Your task to perform on an android device: turn off location Image 0: 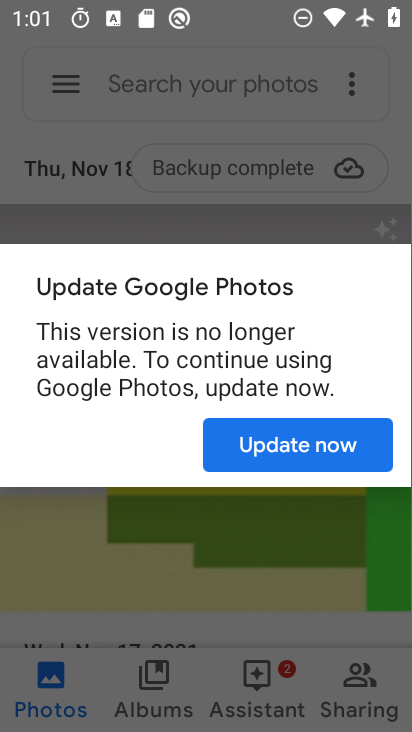
Step 0: press home button
Your task to perform on an android device: turn off location Image 1: 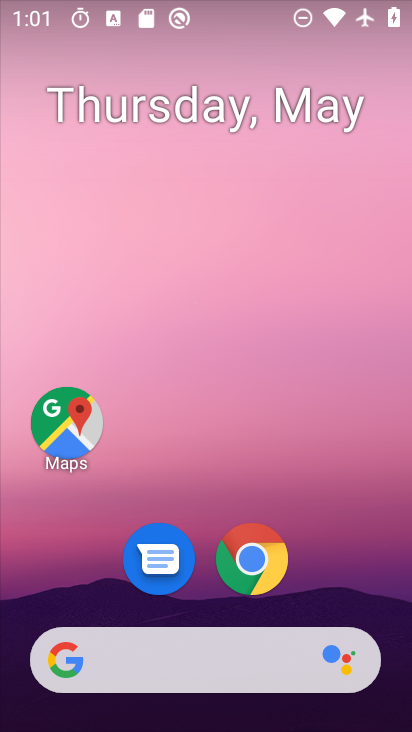
Step 1: drag from (242, 578) to (293, 202)
Your task to perform on an android device: turn off location Image 2: 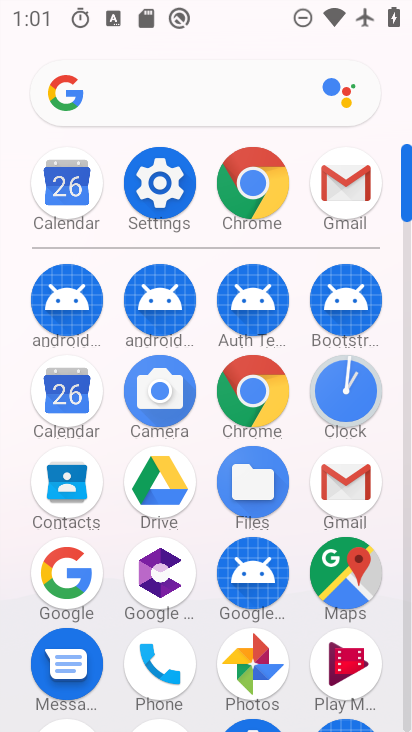
Step 2: click (159, 187)
Your task to perform on an android device: turn off location Image 3: 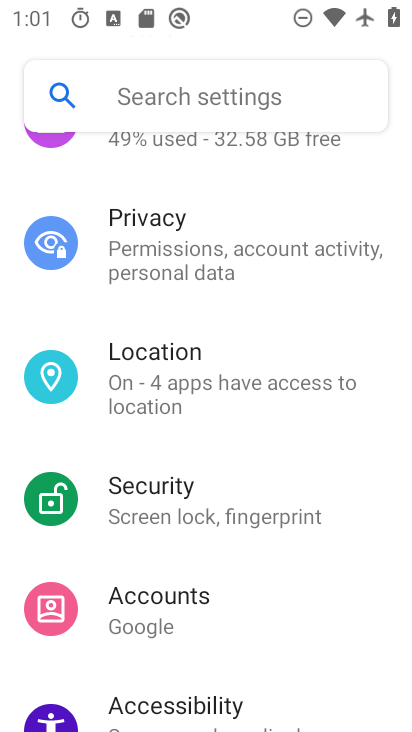
Step 3: click (233, 383)
Your task to perform on an android device: turn off location Image 4: 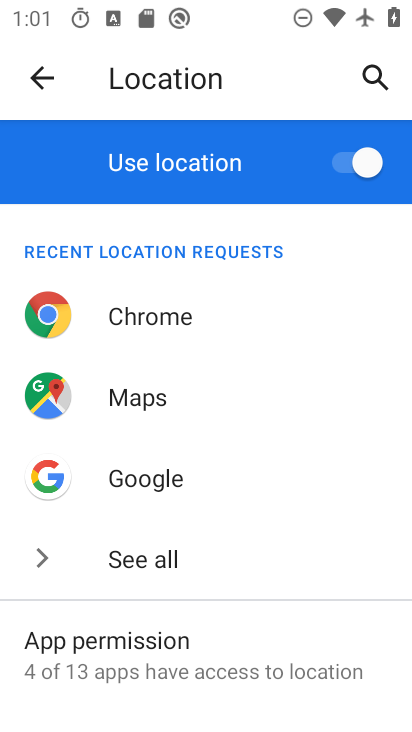
Step 4: click (343, 172)
Your task to perform on an android device: turn off location Image 5: 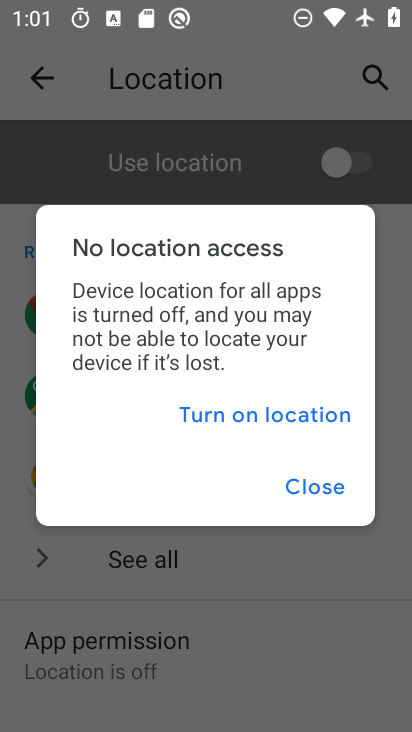
Step 5: click (301, 472)
Your task to perform on an android device: turn off location Image 6: 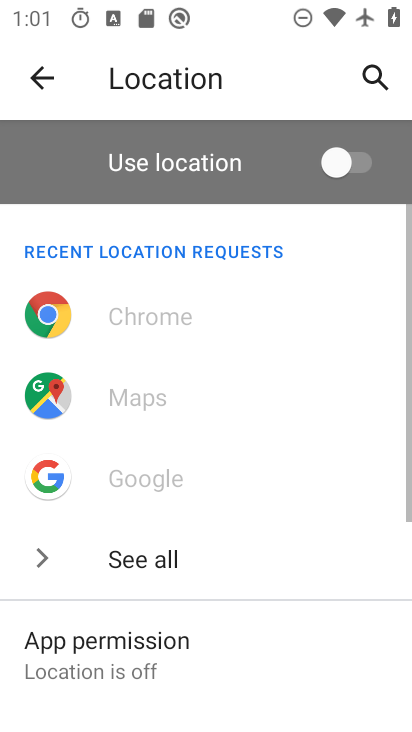
Step 6: task complete